Your task to perform on an android device: Go to Google maps Image 0: 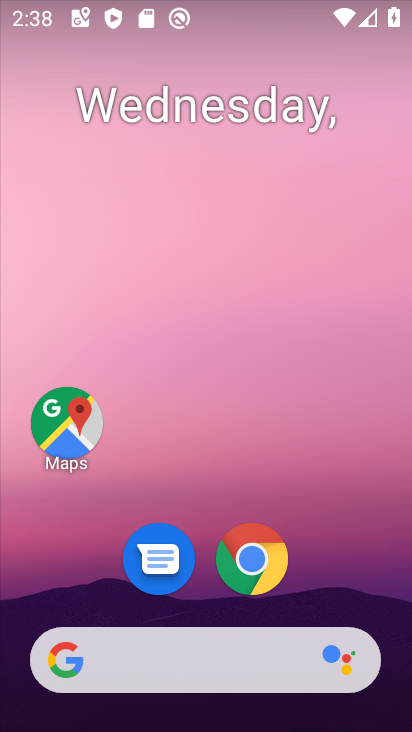
Step 0: drag from (253, 691) to (219, 253)
Your task to perform on an android device: Go to Google maps Image 1: 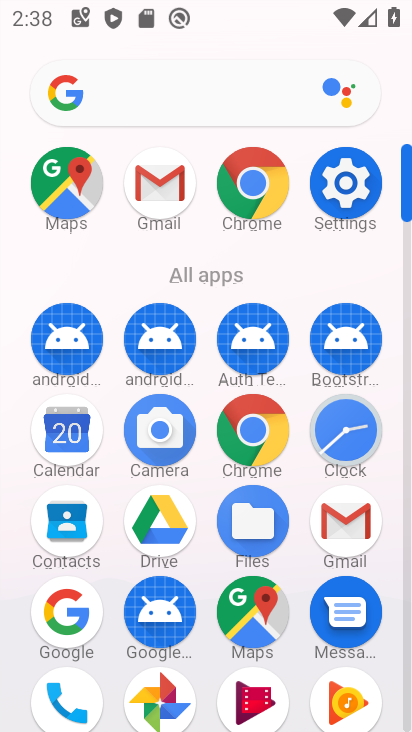
Step 1: click (67, 201)
Your task to perform on an android device: Go to Google maps Image 2: 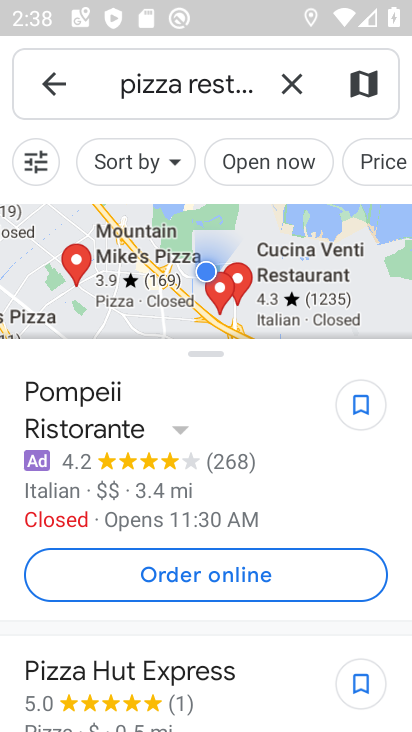
Step 2: click (202, 230)
Your task to perform on an android device: Go to Google maps Image 3: 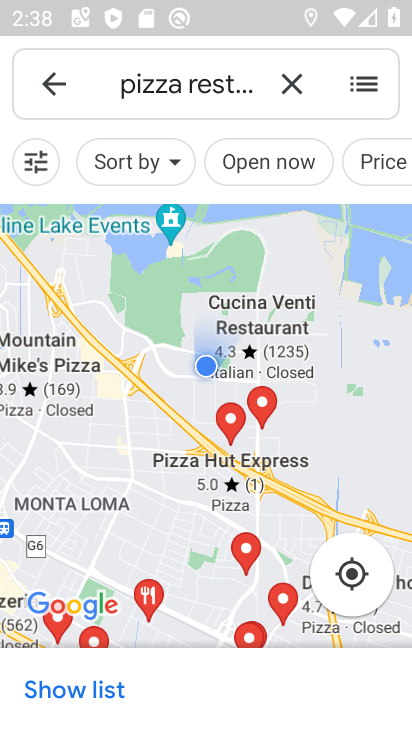
Step 3: click (43, 94)
Your task to perform on an android device: Go to Google maps Image 4: 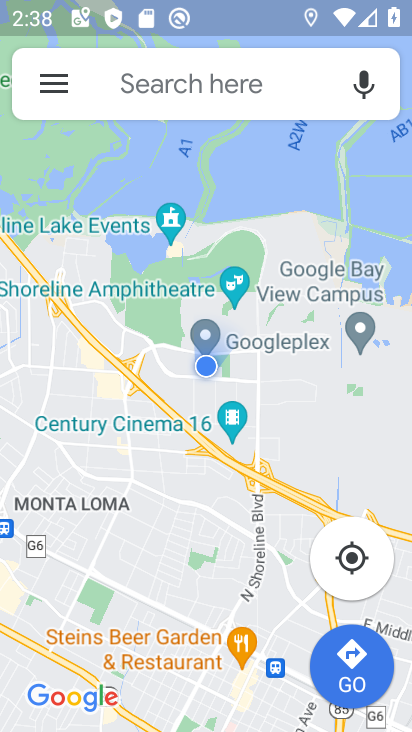
Step 4: click (356, 564)
Your task to perform on an android device: Go to Google maps Image 5: 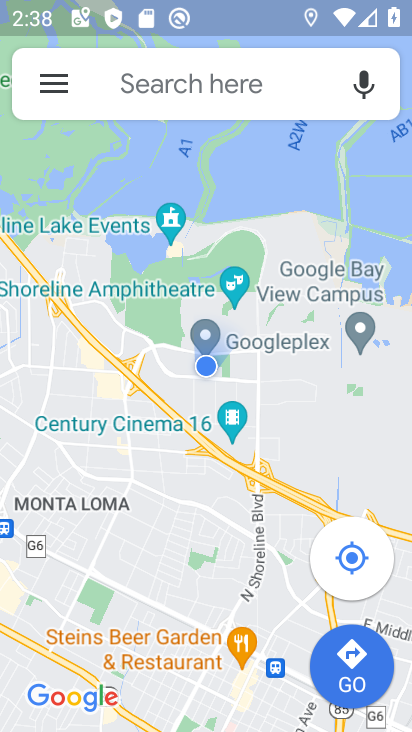
Step 5: task complete